Your task to perform on an android device: Search for razer huntsman on amazon, select the first entry, and add it to the cart. Image 0: 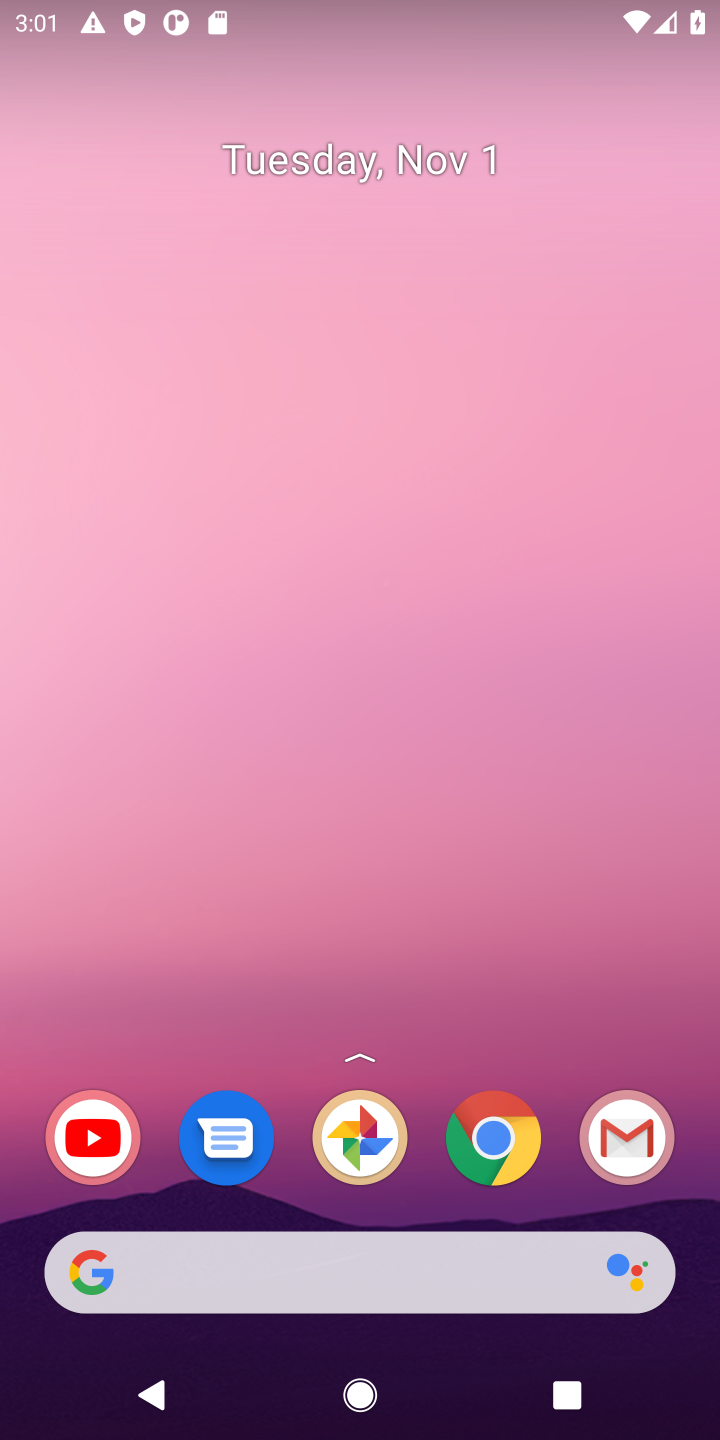
Step 0: click (499, 1139)
Your task to perform on an android device: Search for razer huntsman on amazon, select the first entry, and add it to the cart. Image 1: 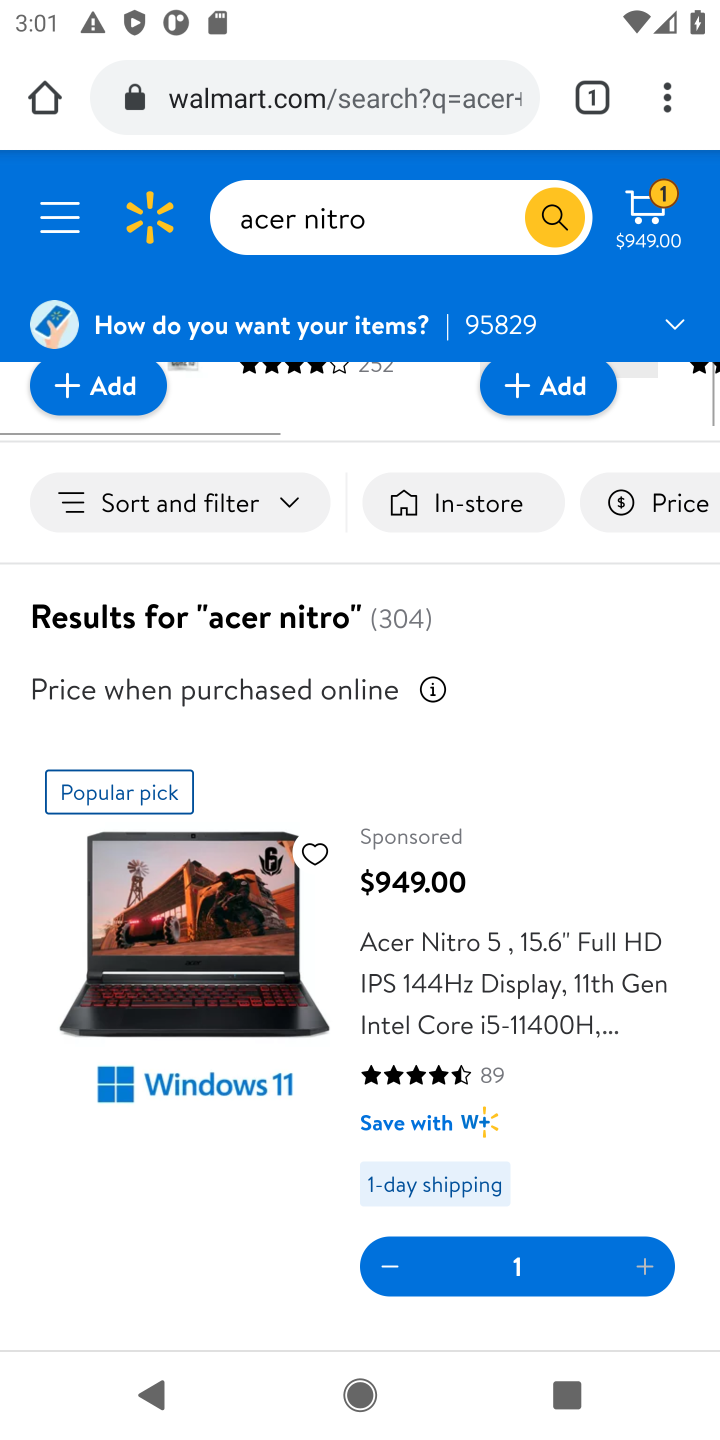
Step 1: click (330, 88)
Your task to perform on an android device: Search for razer huntsman on amazon, select the first entry, and add it to the cart. Image 2: 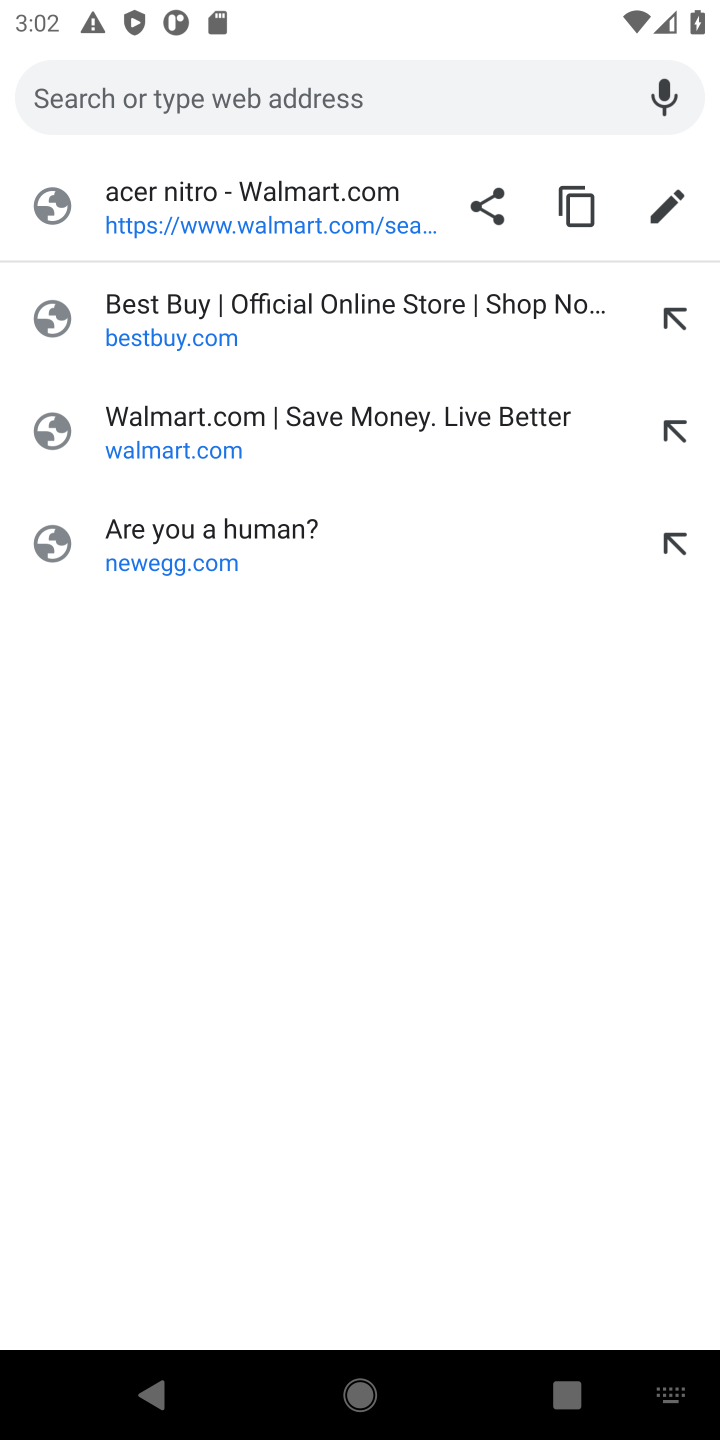
Step 2: type "amazon"
Your task to perform on an android device: Search for razer huntsman on amazon, select the first entry, and add it to the cart. Image 3: 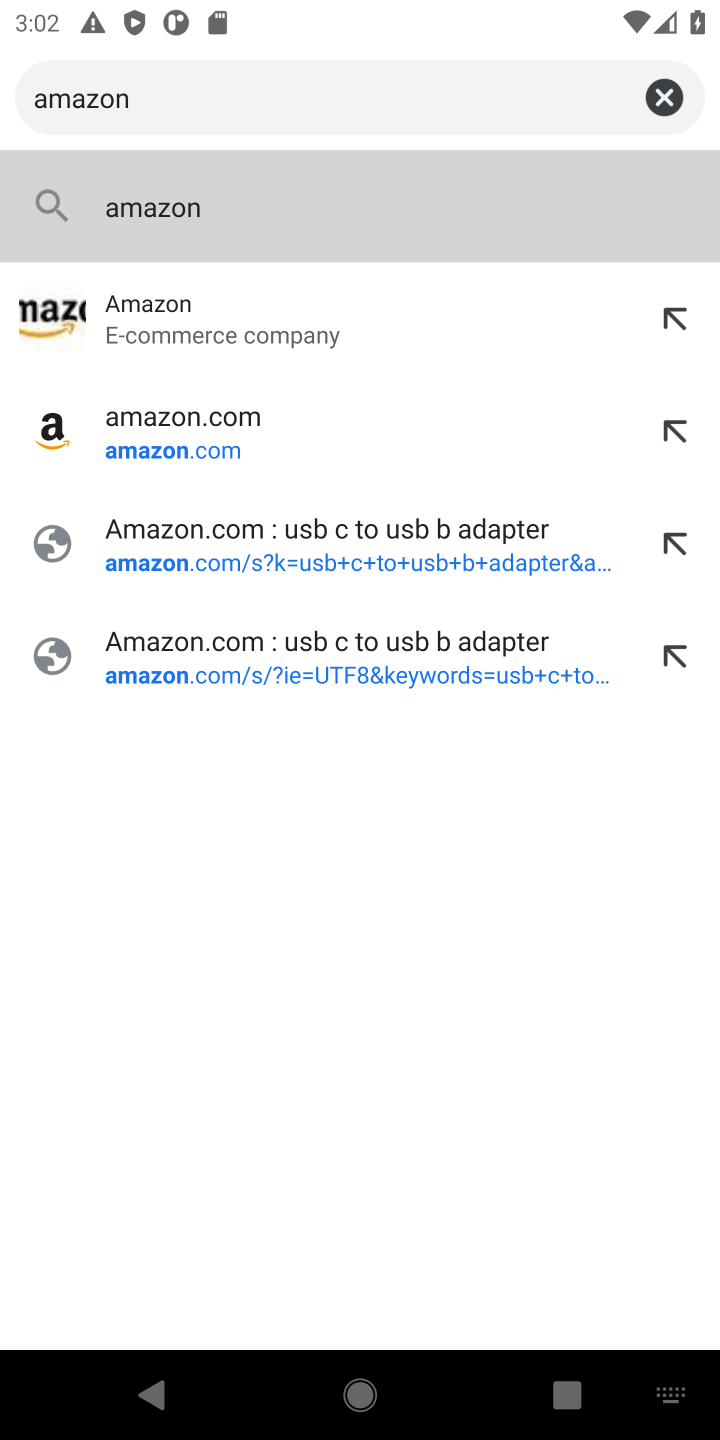
Step 3: click (287, 212)
Your task to perform on an android device: Search for razer huntsman on amazon, select the first entry, and add it to the cart. Image 4: 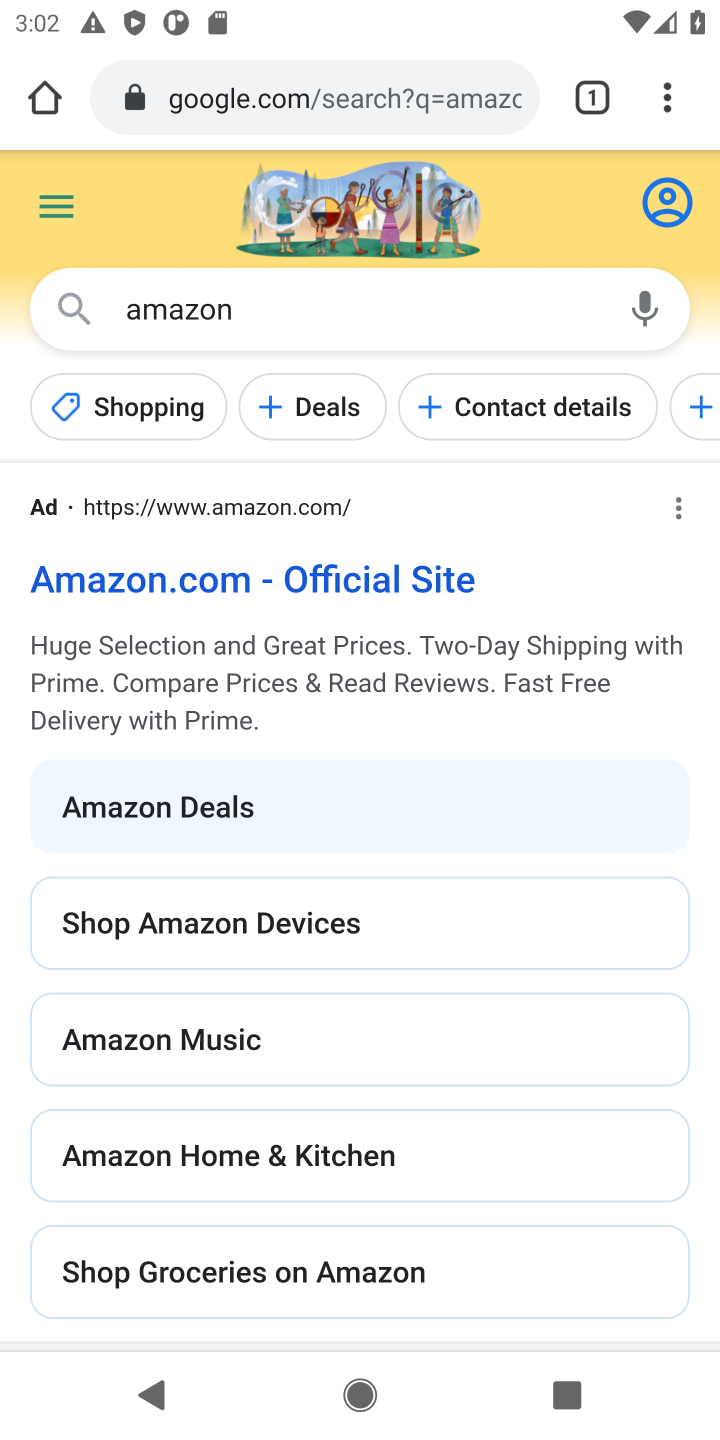
Step 4: click (315, 586)
Your task to perform on an android device: Search for razer huntsman on amazon, select the first entry, and add it to the cart. Image 5: 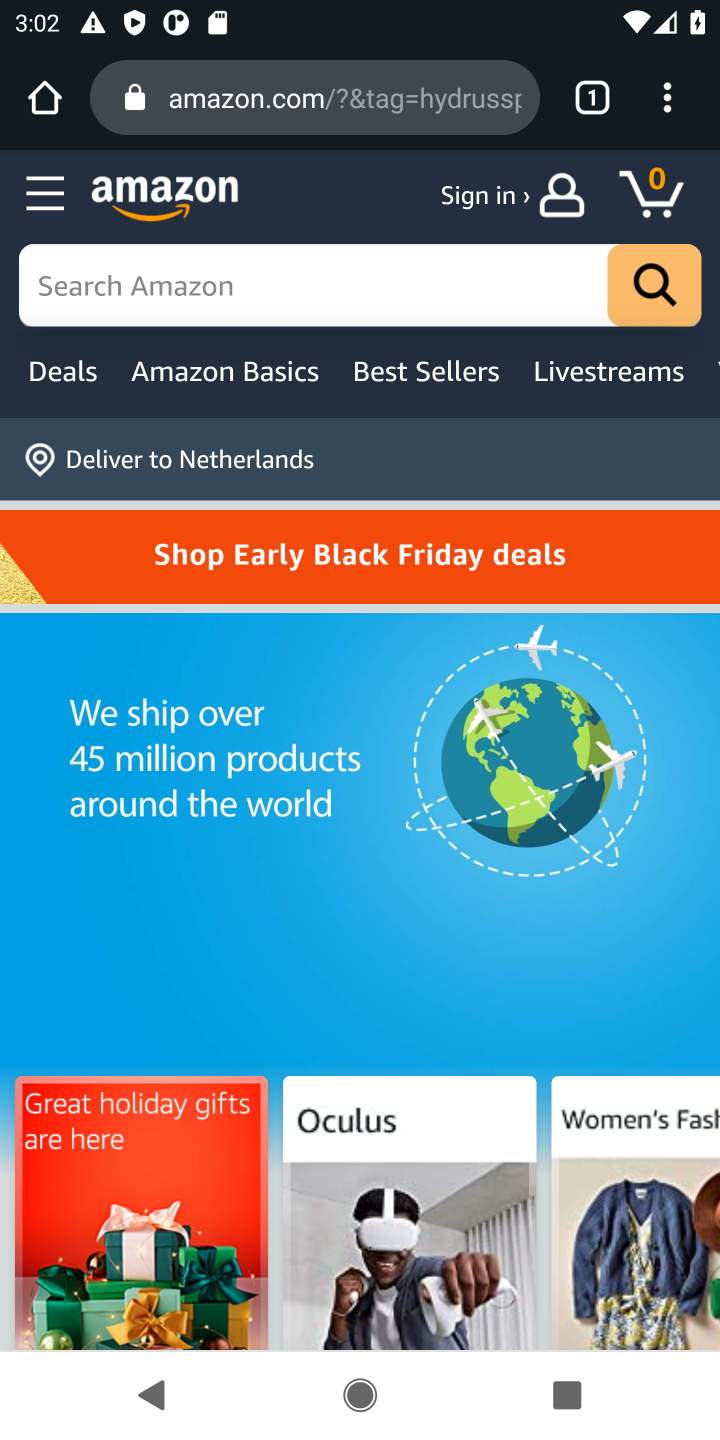
Step 5: click (317, 293)
Your task to perform on an android device: Search for razer huntsman on amazon, select the first entry, and add it to the cart. Image 6: 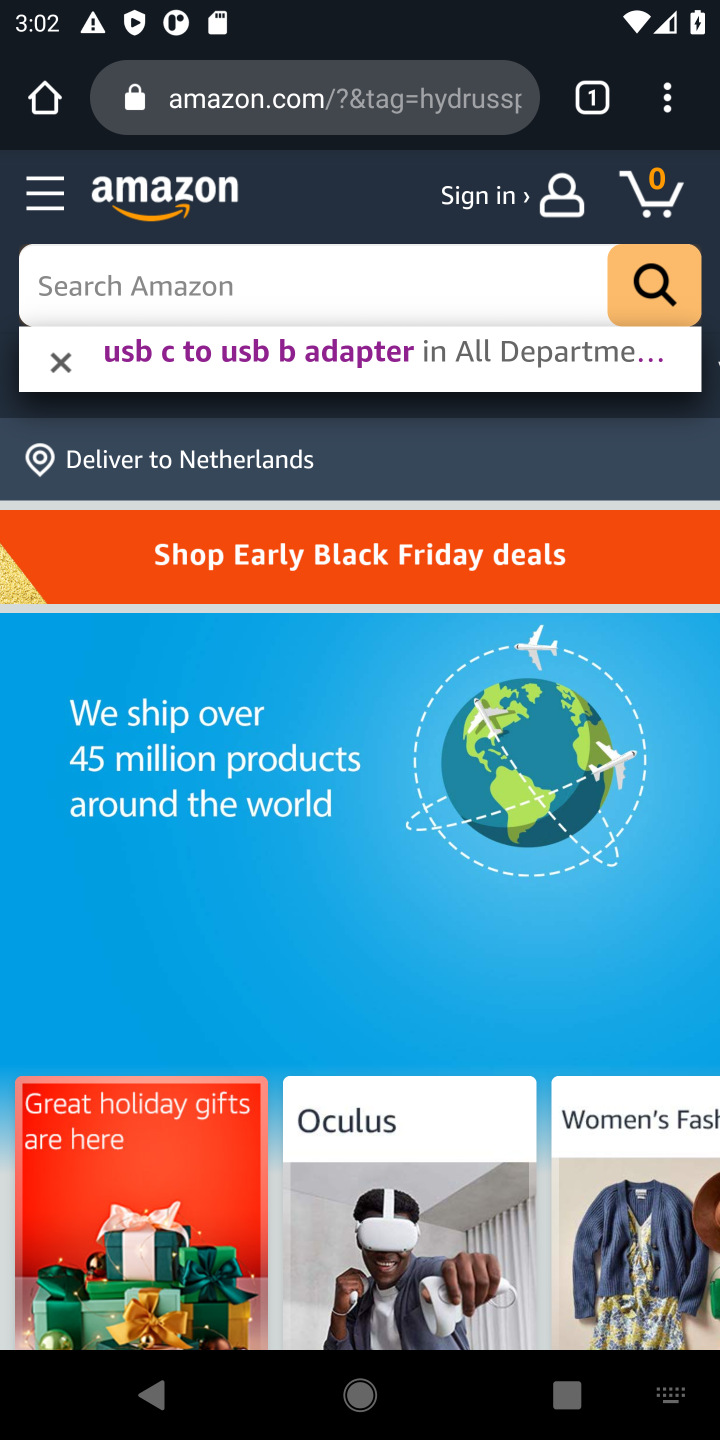
Step 6: type "razer huntsman"
Your task to perform on an android device: Search for razer huntsman on amazon, select the first entry, and add it to the cart. Image 7: 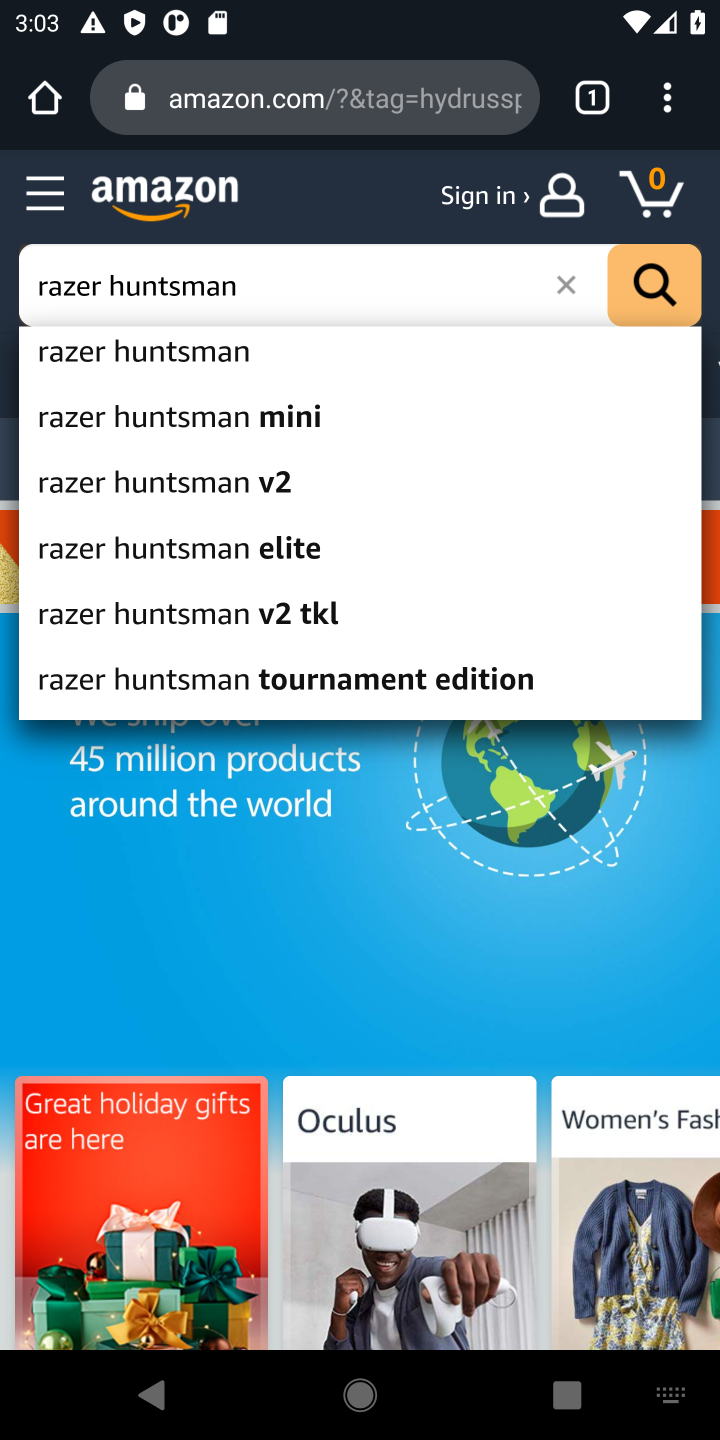
Step 7: click (195, 337)
Your task to perform on an android device: Search for razer huntsman on amazon, select the first entry, and add it to the cart. Image 8: 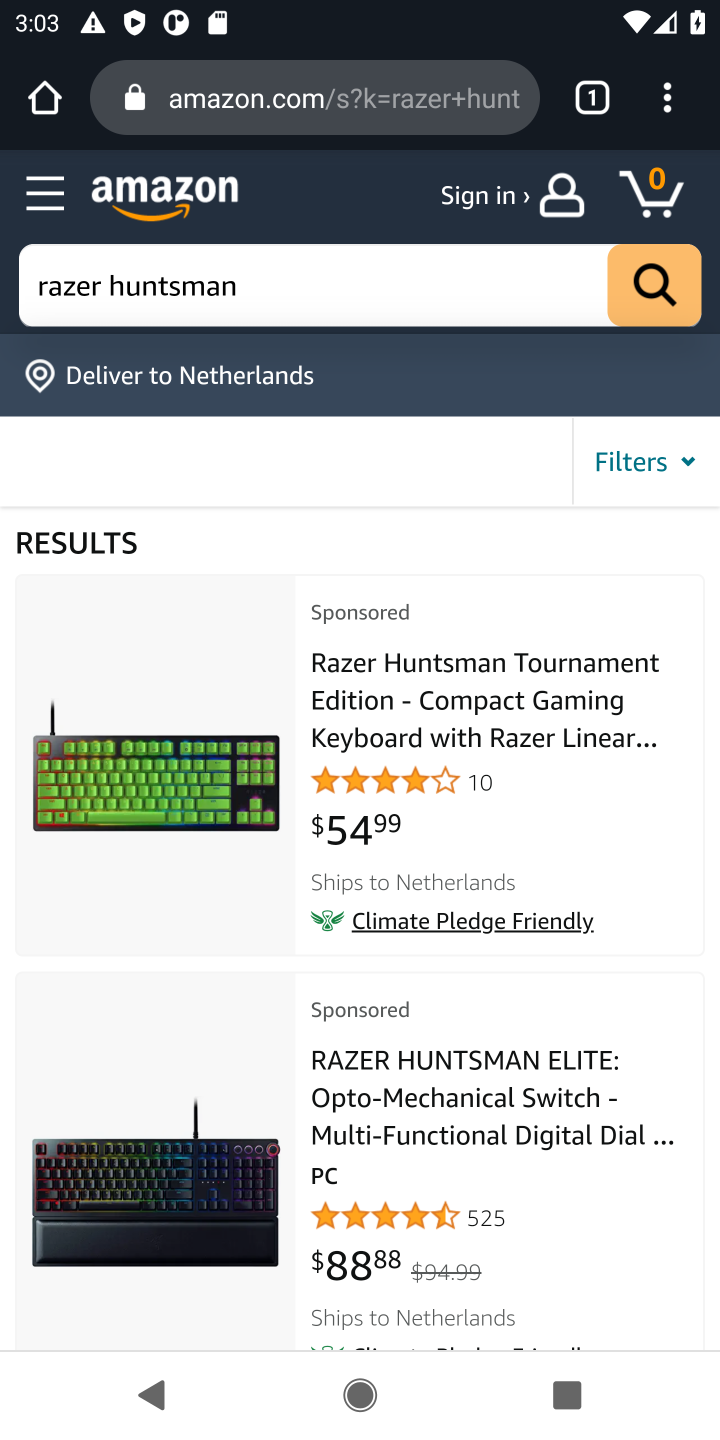
Step 8: click (383, 725)
Your task to perform on an android device: Search for razer huntsman on amazon, select the first entry, and add it to the cart. Image 9: 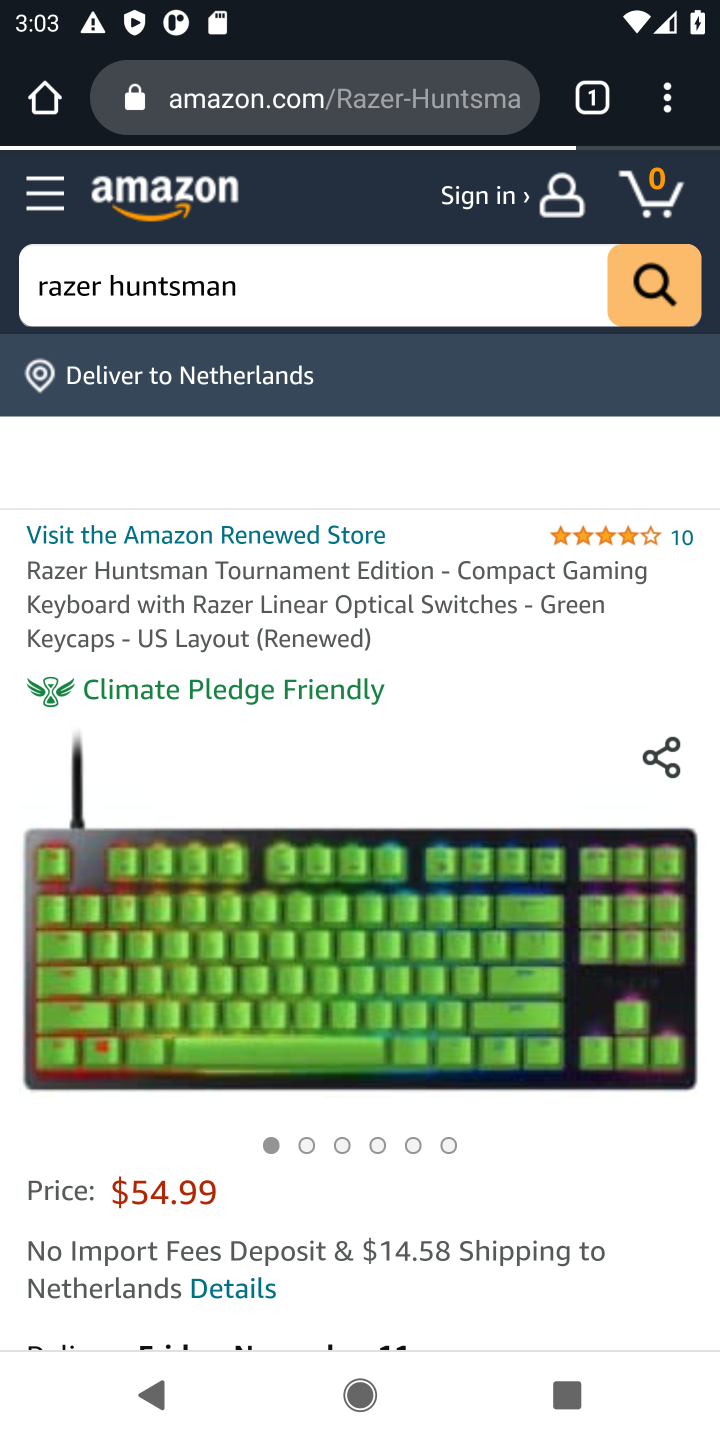
Step 9: drag from (380, 1131) to (428, 576)
Your task to perform on an android device: Search for razer huntsman on amazon, select the first entry, and add it to the cart. Image 10: 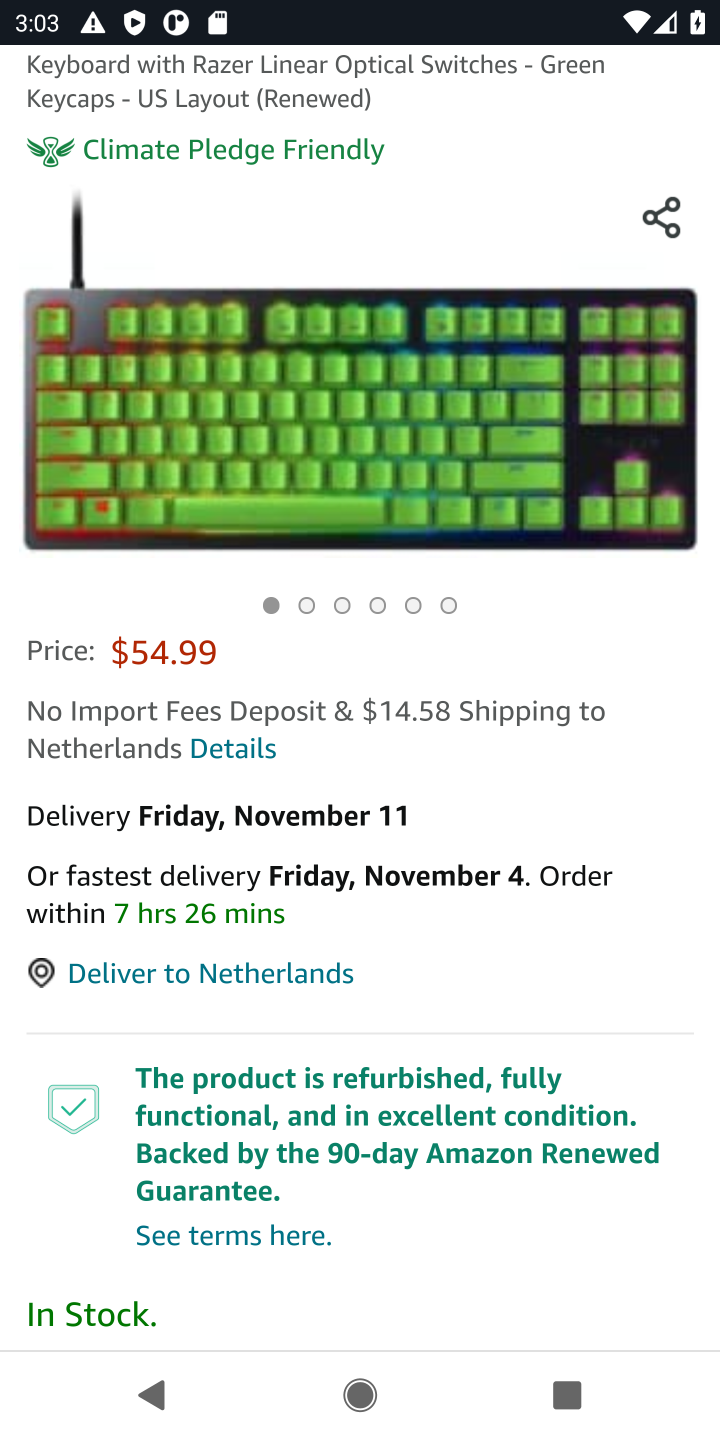
Step 10: drag from (353, 1167) to (401, 122)
Your task to perform on an android device: Search for razer huntsman on amazon, select the first entry, and add it to the cart. Image 11: 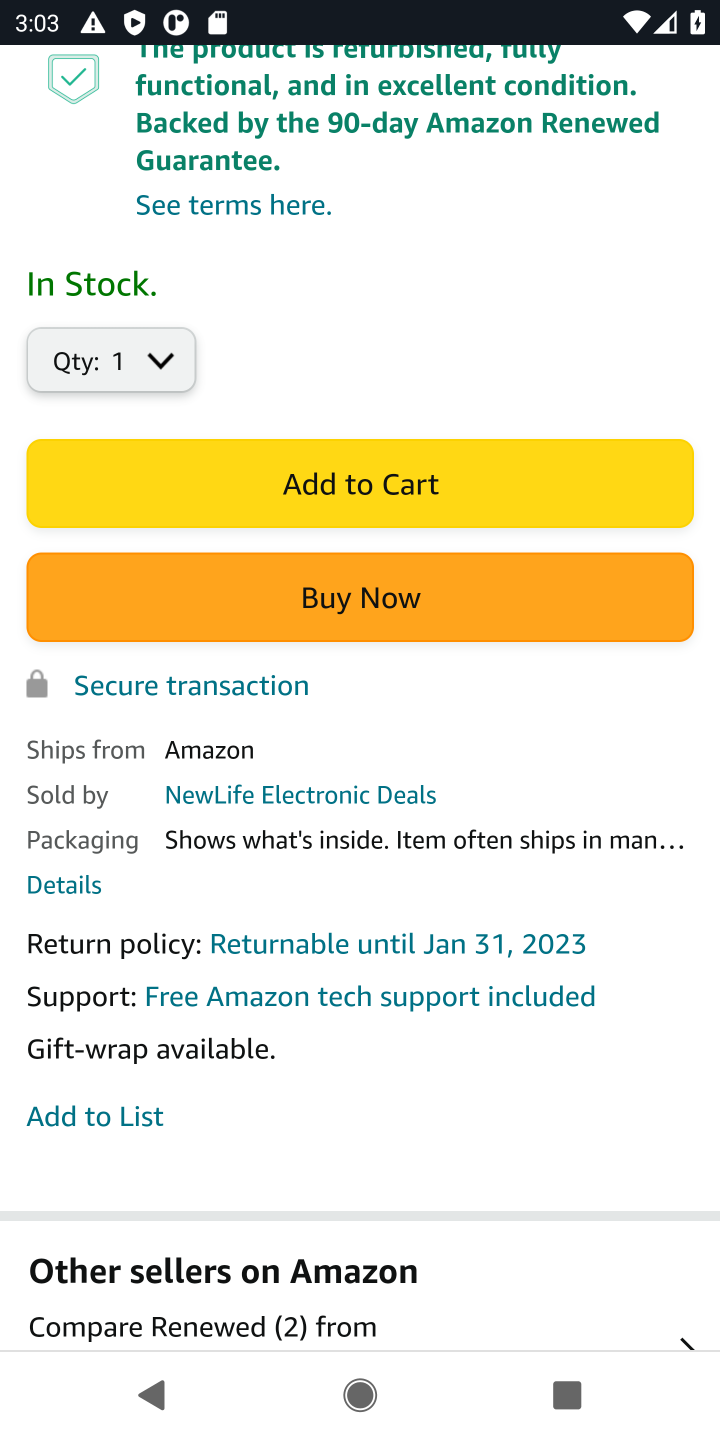
Step 11: click (415, 474)
Your task to perform on an android device: Search for razer huntsman on amazon, select the first entry, and add it to the cart. Image 12: 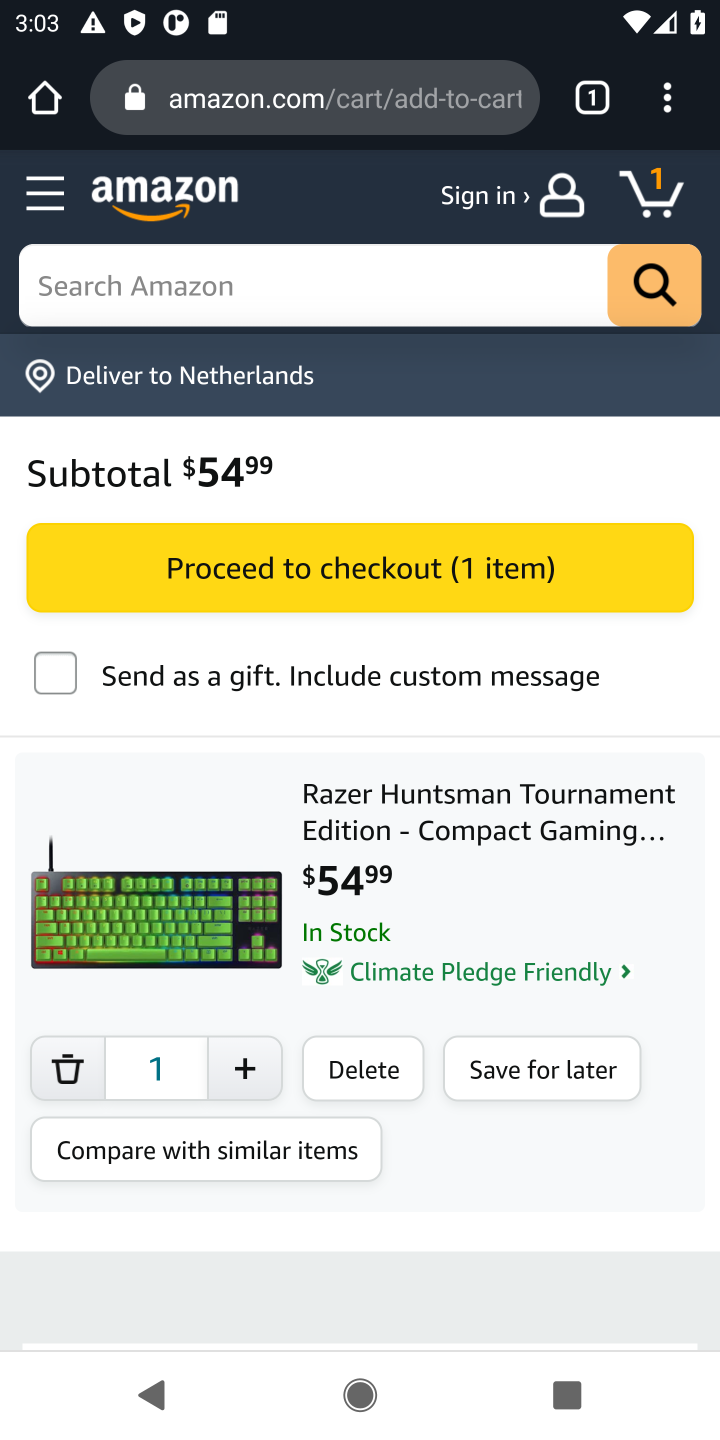
Step 12: task complete